Your task to perform on an android device: Do I have any events this weekend? Image 0: 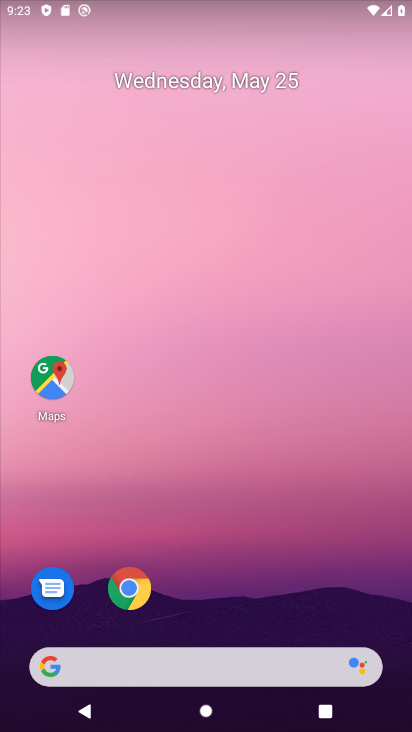
Step 0: drag from (269, 545) to (315, 1)
Your task to perform on an android device: Do I have any events this weekend? Image 1: 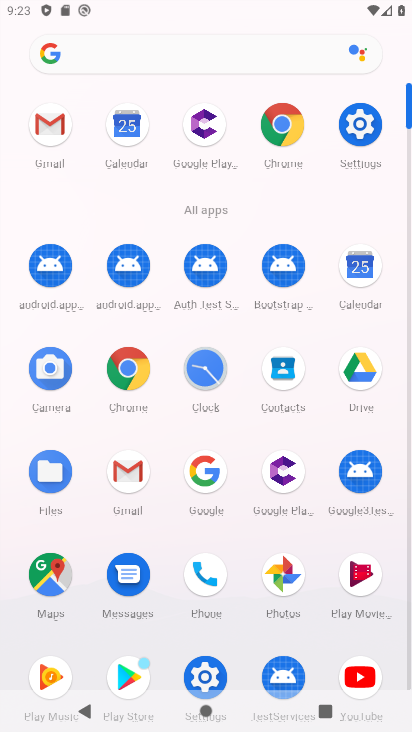
Step 1: click (359, 272)
Your task to perform on an android device: Do I have any events this weekend? Image 2: 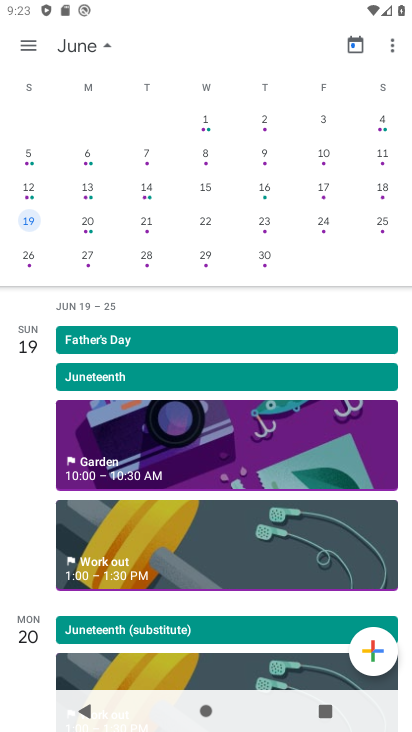
Step 2: drag from (165, 181) to (381, 180)
Your task to perform on an android device: Do I have any events this weekend? Image 3: 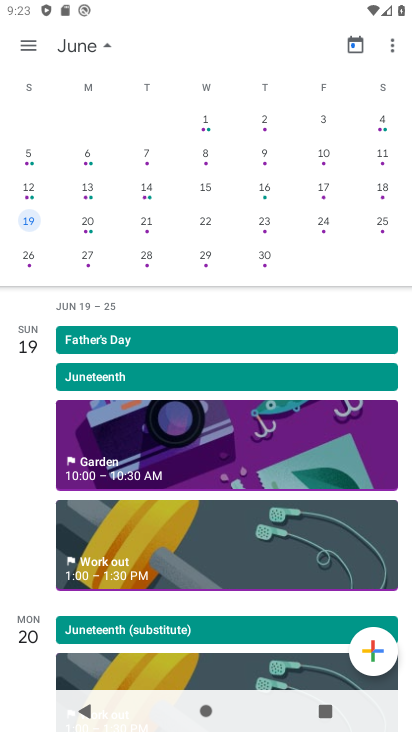
Step 3: drag from (79, 193) to (384, 225)
Your task to perform on an android device: Do I have any events this weekend? Image 4: 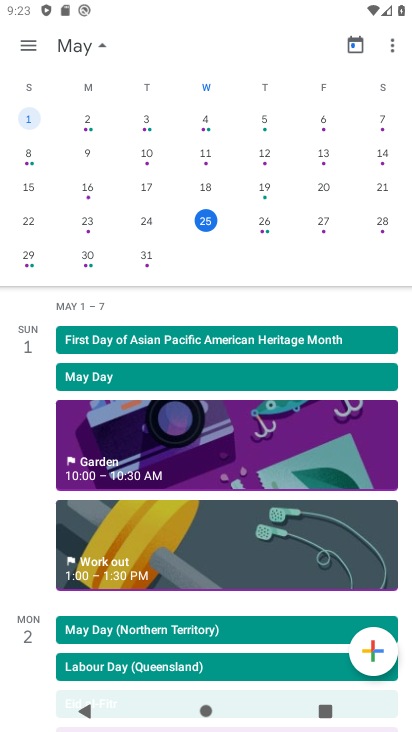
Step 4: click (379, 222)
Your task to perform on an android device: Do I have any events this weekend? Image 5: 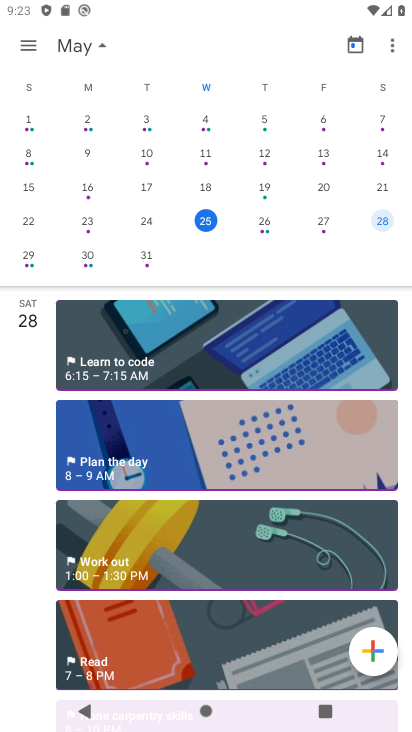
Step 5: task complete